Your task to perform on an android device: Open eBay Image 0: 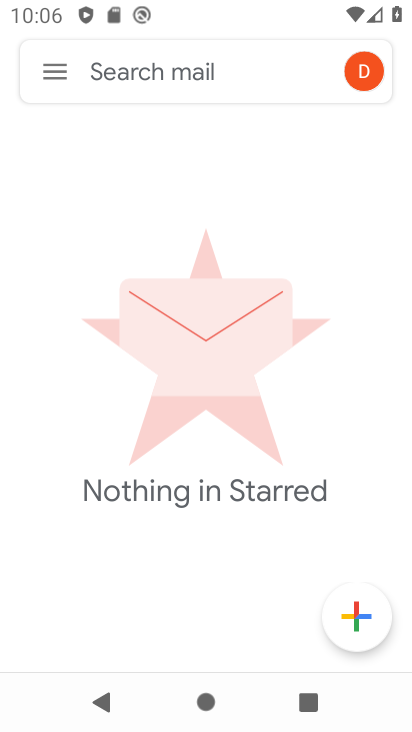
Step 0: press home button
Your task to perform on an android device: Open eBay Image 1: 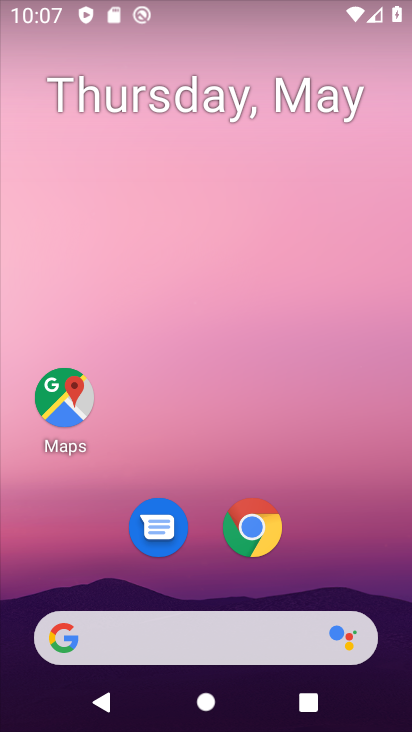
Step 1: click (257, 525)
Your task to perform on an android device: Open eBay Image 2: 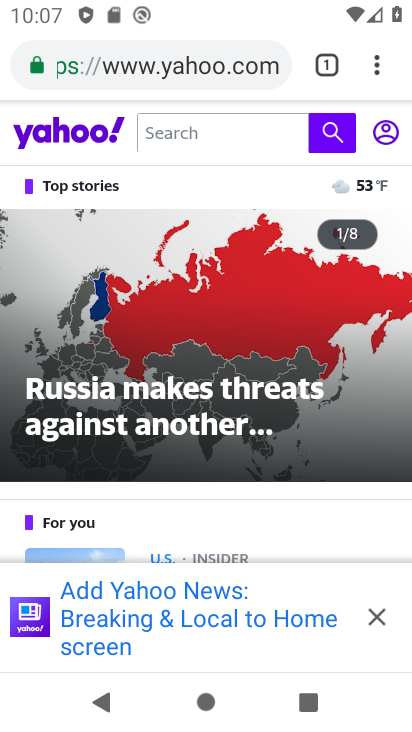
Step 2: click (140, 55)
Your task to perform on an android device: Open eBay Image 3: 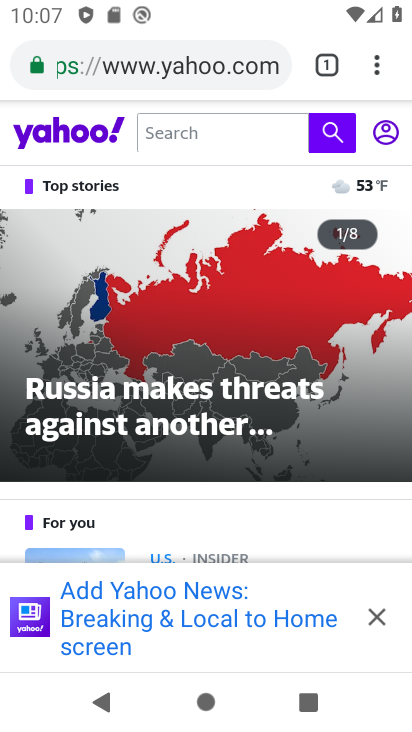
Step 3: click (156, 68)
Your task to perform on an android device: Open eBay Image 4: 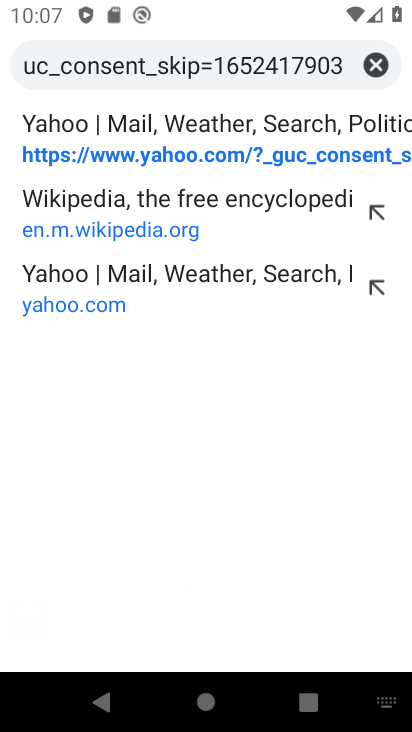
Step 4: click (387, 72)
Your task to perform on an android device: Open eBay Image 5: 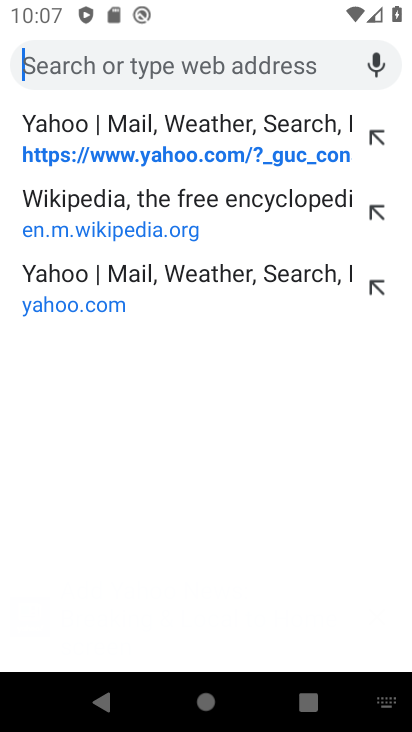
Step 5: click (137, 74)
Your task to perform on an android device: Open eBay Image 6: 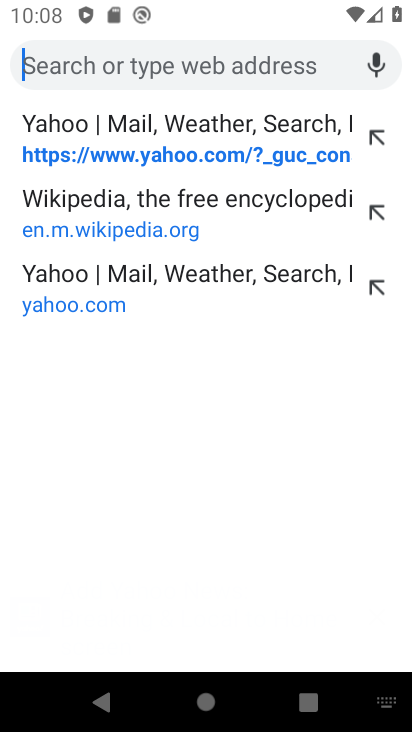
Step 6: type "www.ebay.com"
Your task to perform on an android device: Open eBay Image 7: 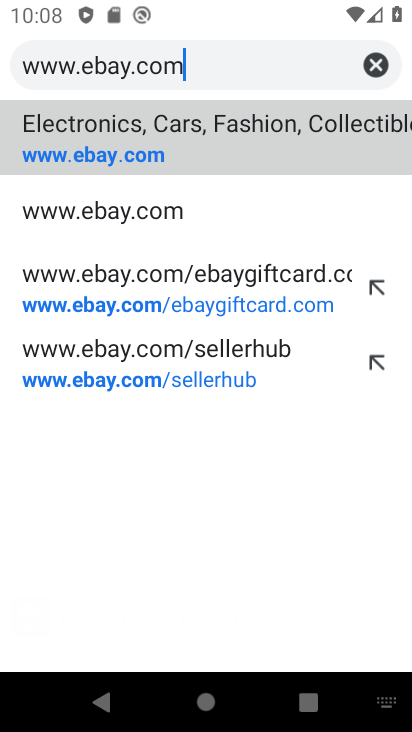
Step 7: click (89, 156)
Your task to perform on an android device: Open eBay Image 8: 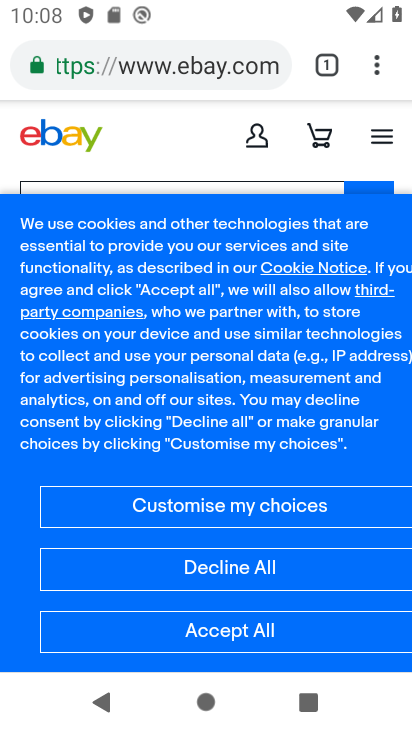
Step 8: task complete